Your task to perform on an android device: Open the calendar and show me this week's events? Image 0: 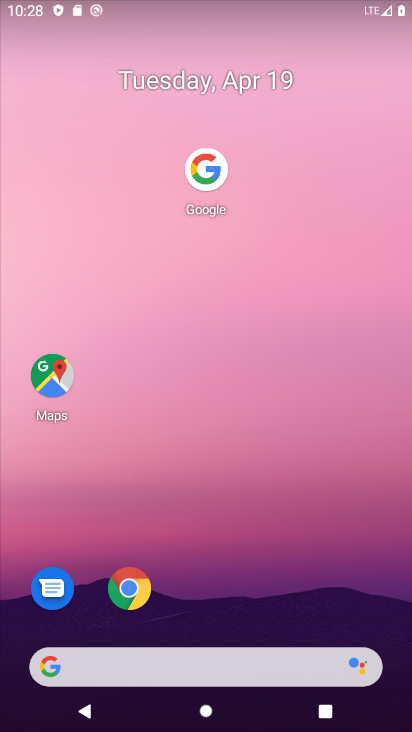
Step 0: drag from (261, 599) to (254, 24)
Your task to perform on an android device: Open the calendar and show me this week's events? Image 1: 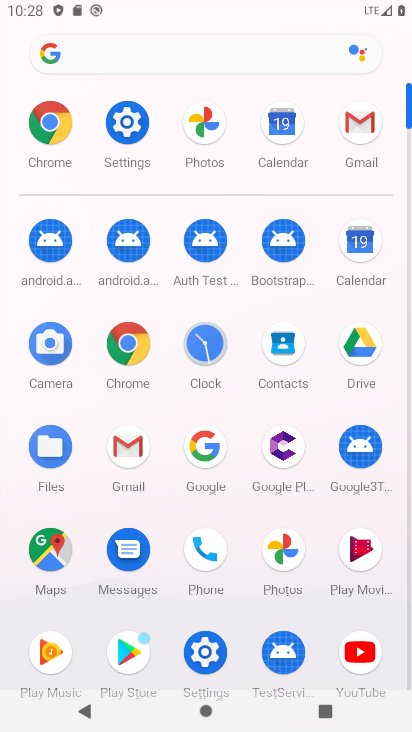
Step 1: click (349, 243)
Your task to perform on an android device: Open the calendar and show me this week's events? Image 2: 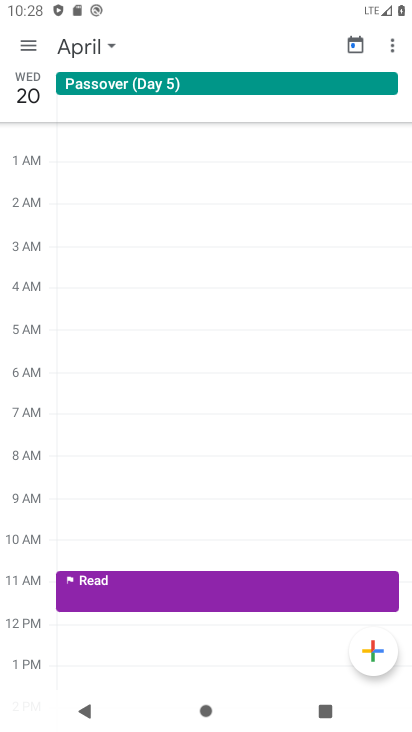
Step 2: click (33, 41)
Your task to perform on an android device: Open the calendar and show me this week's events? Image 3: 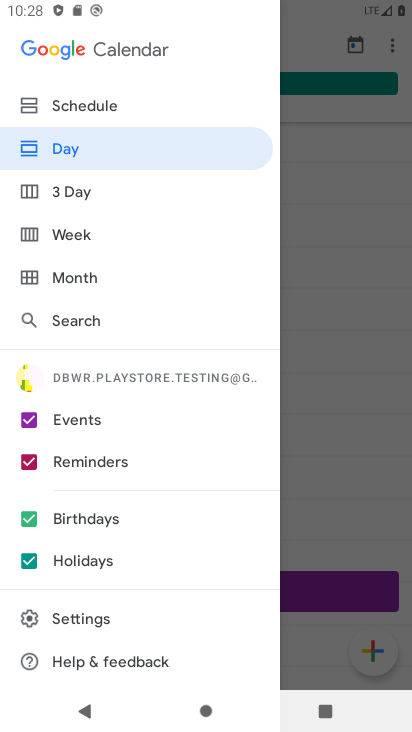
Step 3: click (63, 235)
Your task to perform on an android device: Open the calendar and show me this week's events? Image 4: 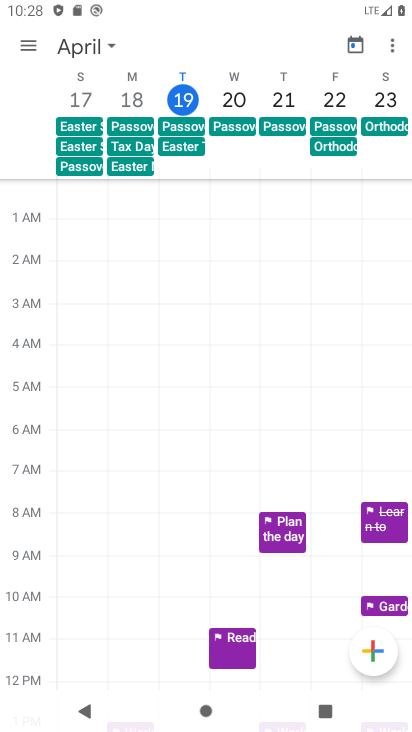
Step 4: task complete